Your task to perform on an android device: Search for "asus zenbook" on target, select the first entry, and add it to the cart. Image 0: 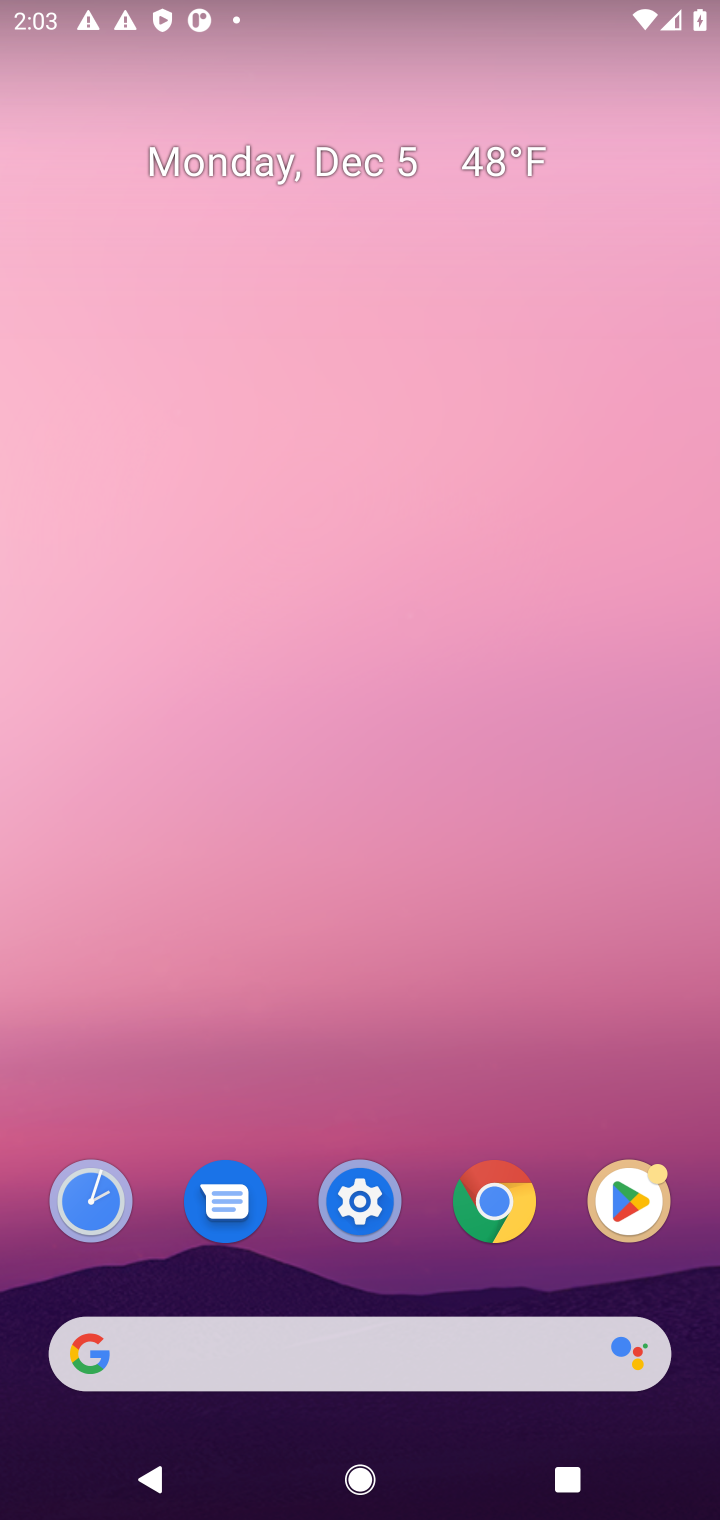
Step 0: press home button
Your task to perform on an android device: Search for "asus zenbook" on target, select the first entry, and add it to the cart. Image 1: 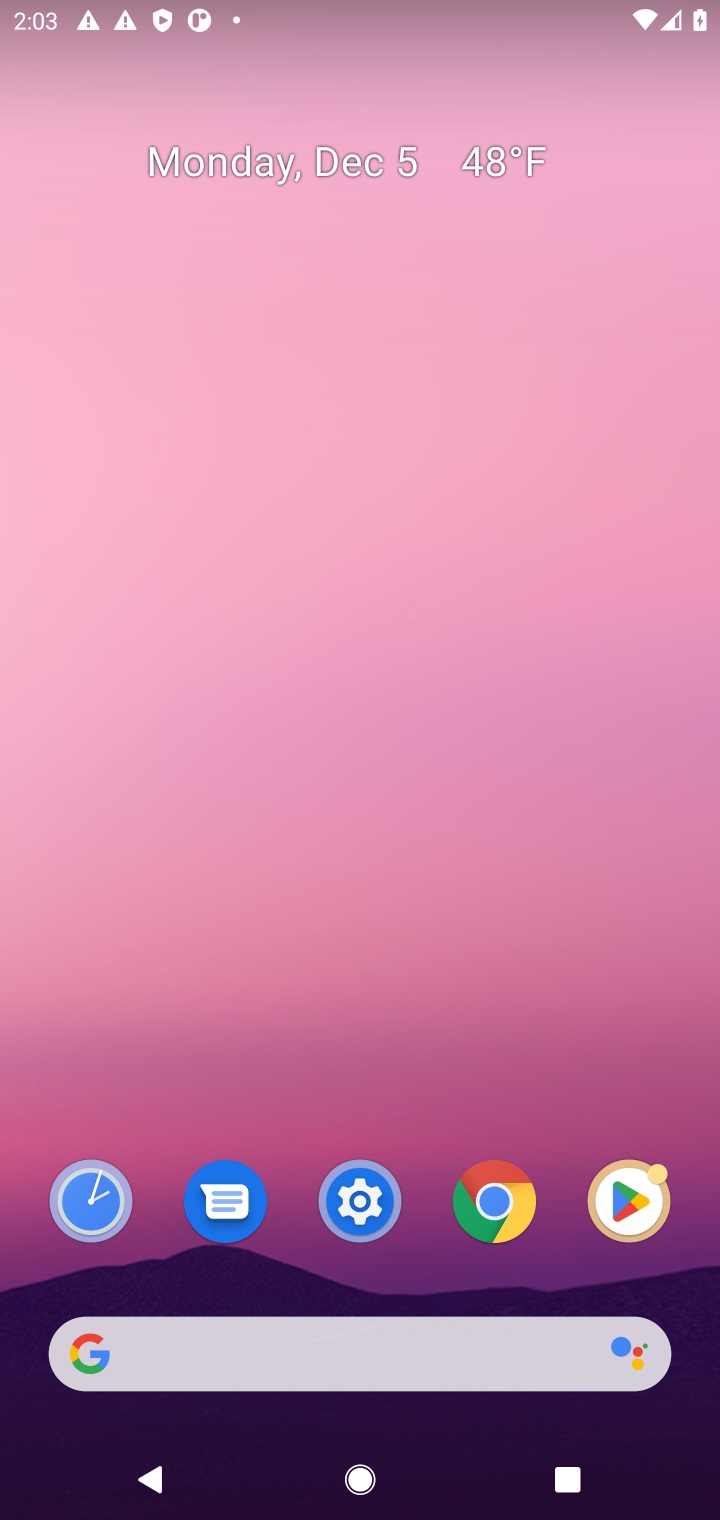
Step 1: click (486, 1193)
Your task to perform on an android device: Search for "asus zenbook" on target, select the first entry, and add it to the cart. Image 2: 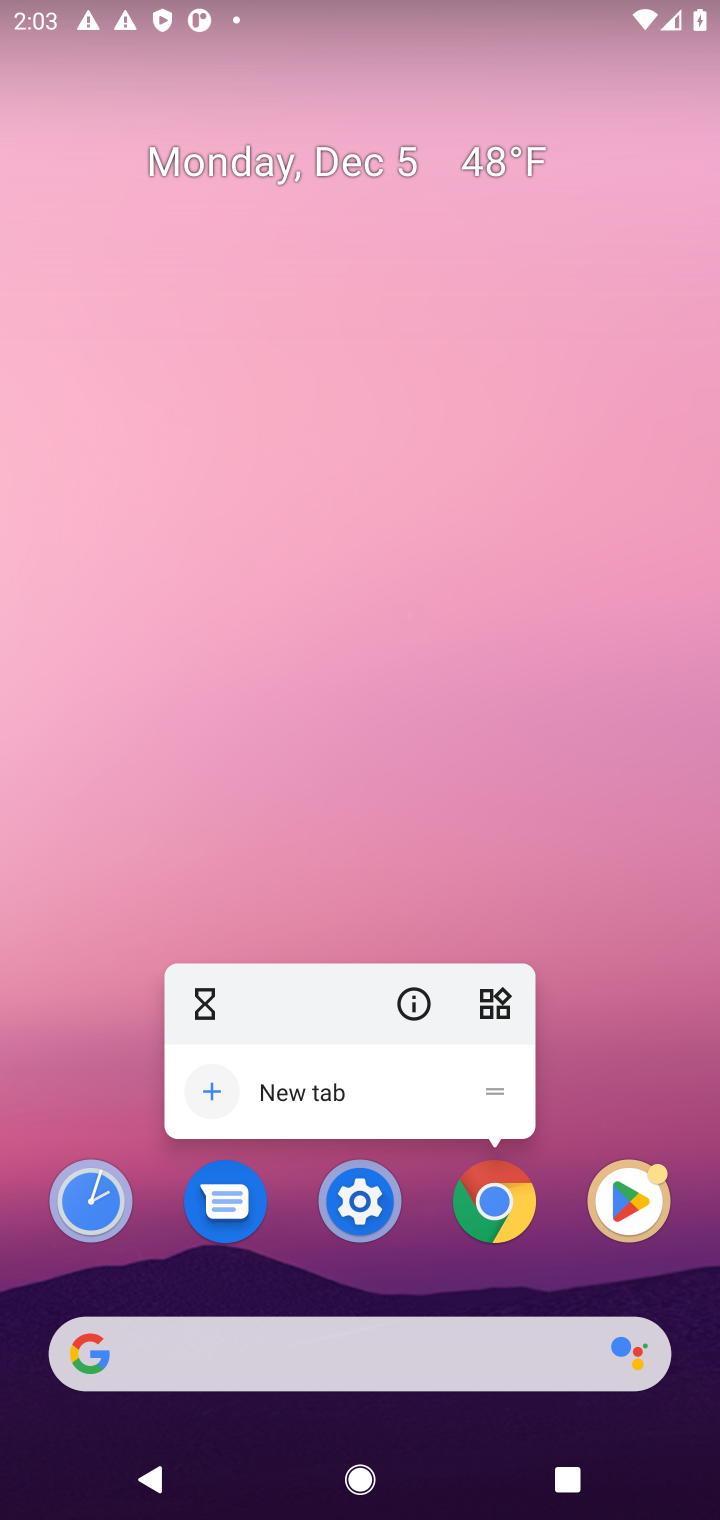
Step 2: click (493, 1200)
Your task to perform on an android device: Search for "asus zenbook" on target, select the first entry, and add it to the cart. Image 3: 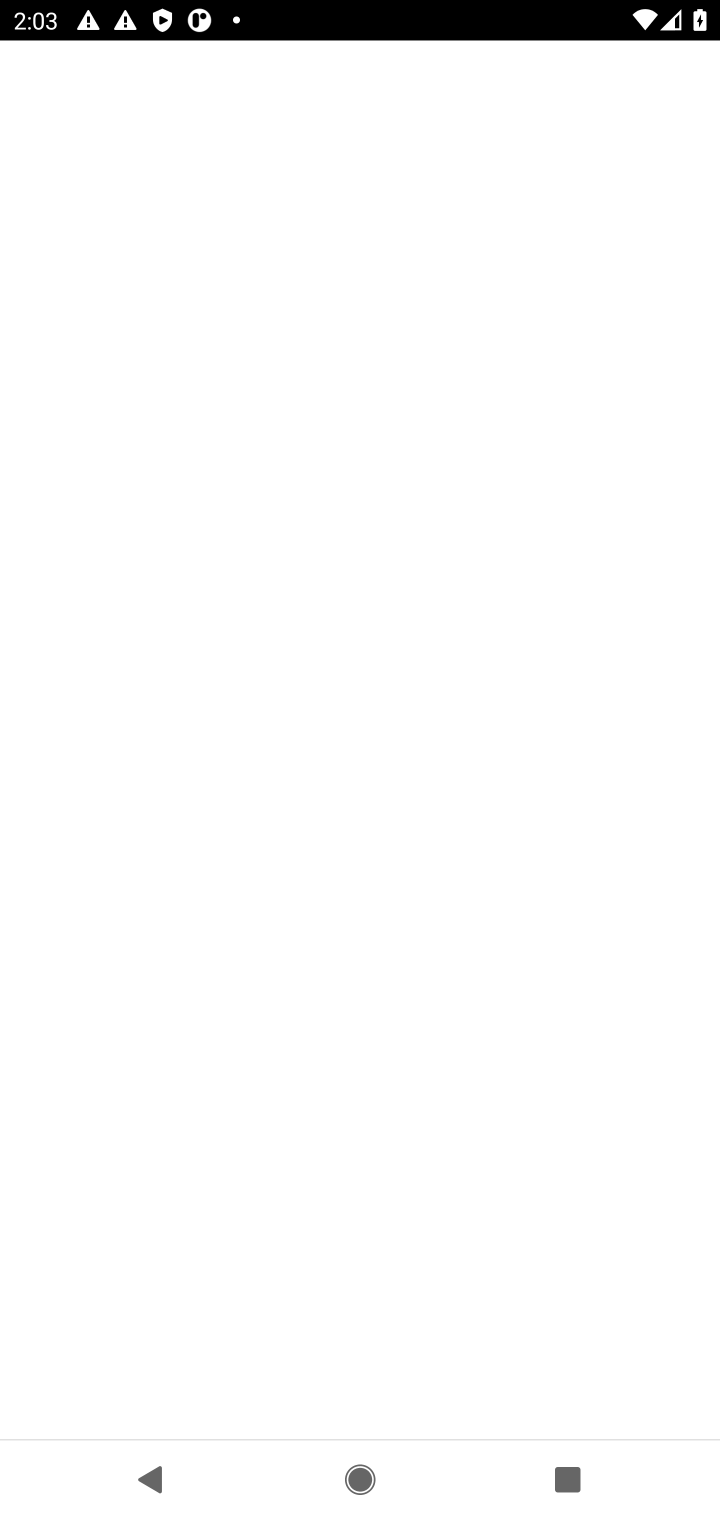
Step 3: click (493, 1200)
Your task to perform on an android device: Search for "asus zenbook" on target, select the first entry, and add it to the cart. Image 4: 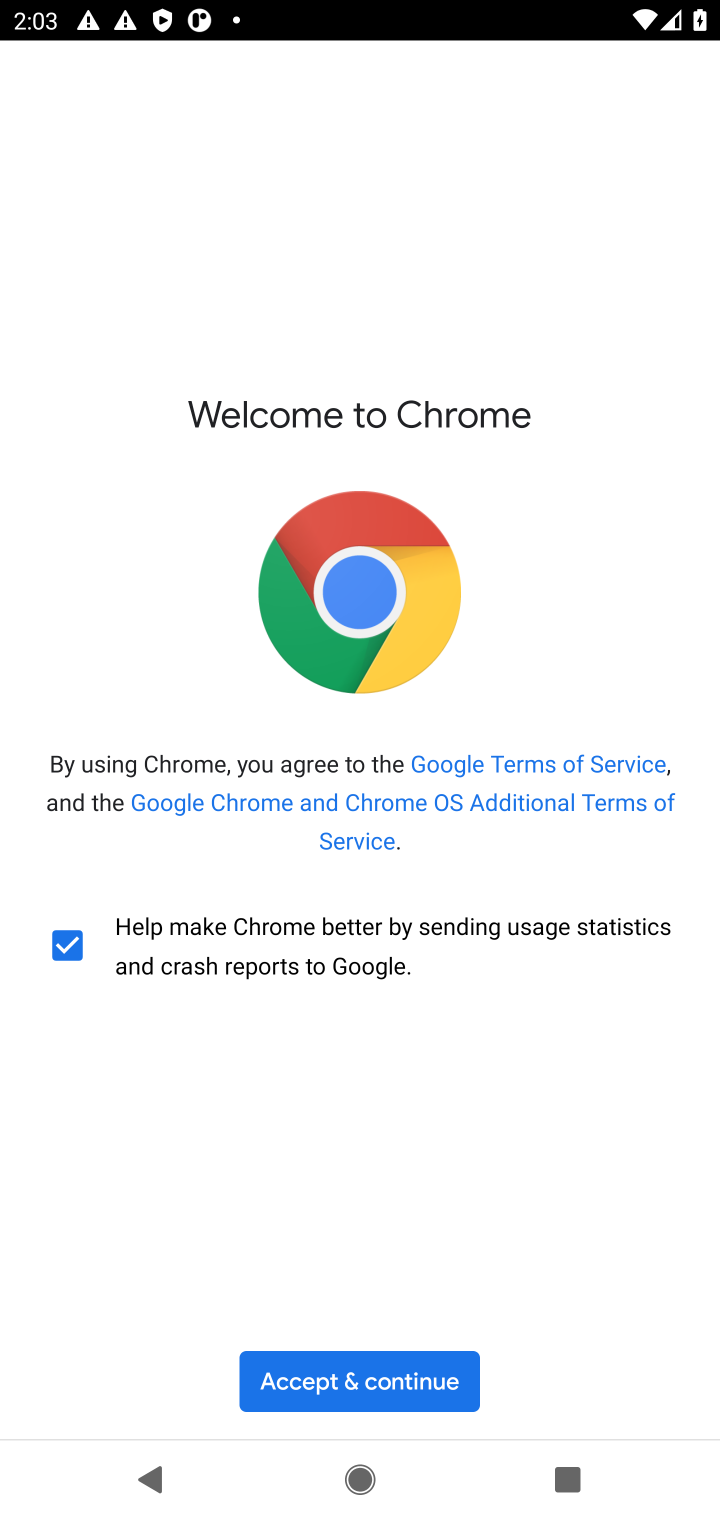
Step 4: click (372, 1372)
Your task to perform on an android device: Search for "asus zenbook" on target, select the first entry, and add it to the cart. Image 5: 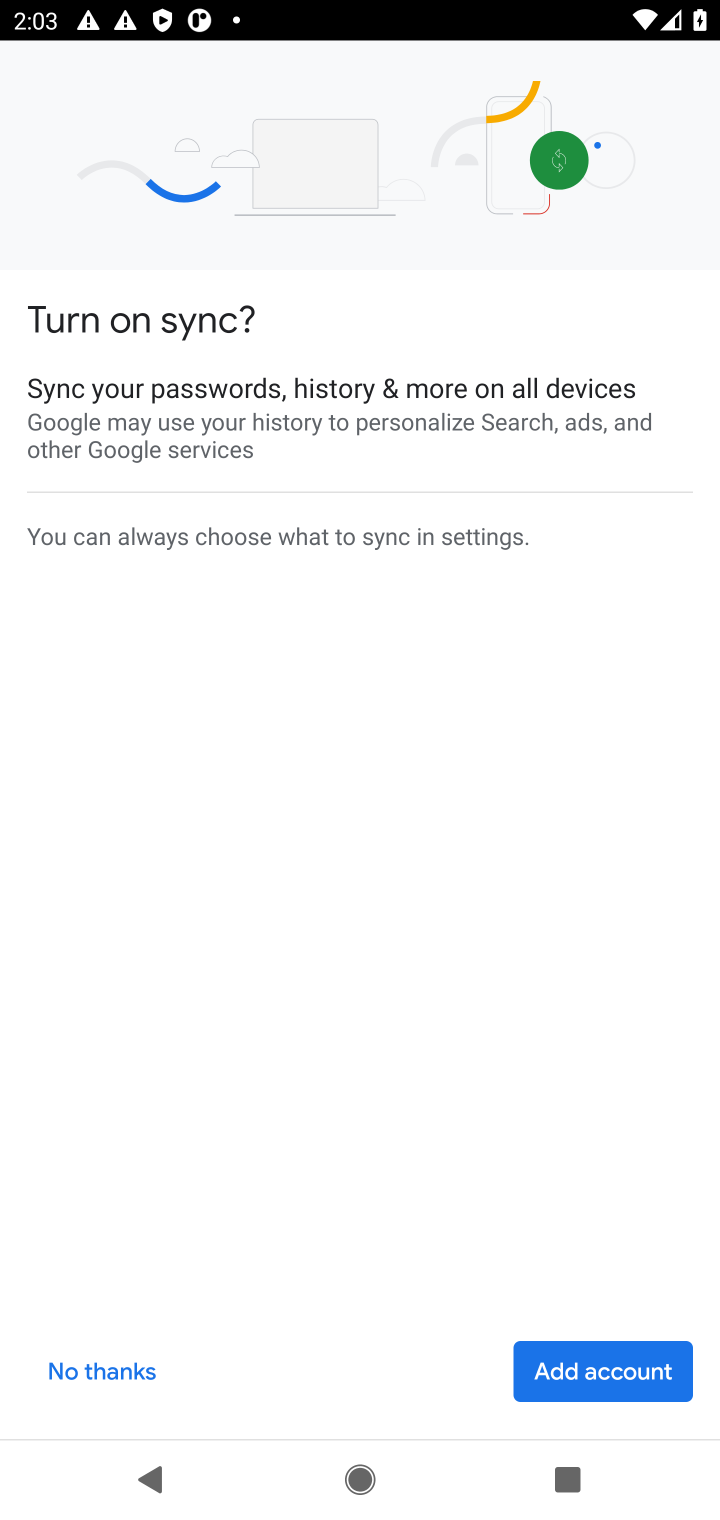
Step 5: click (94, 1371)
Your task to perform on an android device: Search for "asus zenbook" on target, select the first entry, and add it to the cart. Image 6: 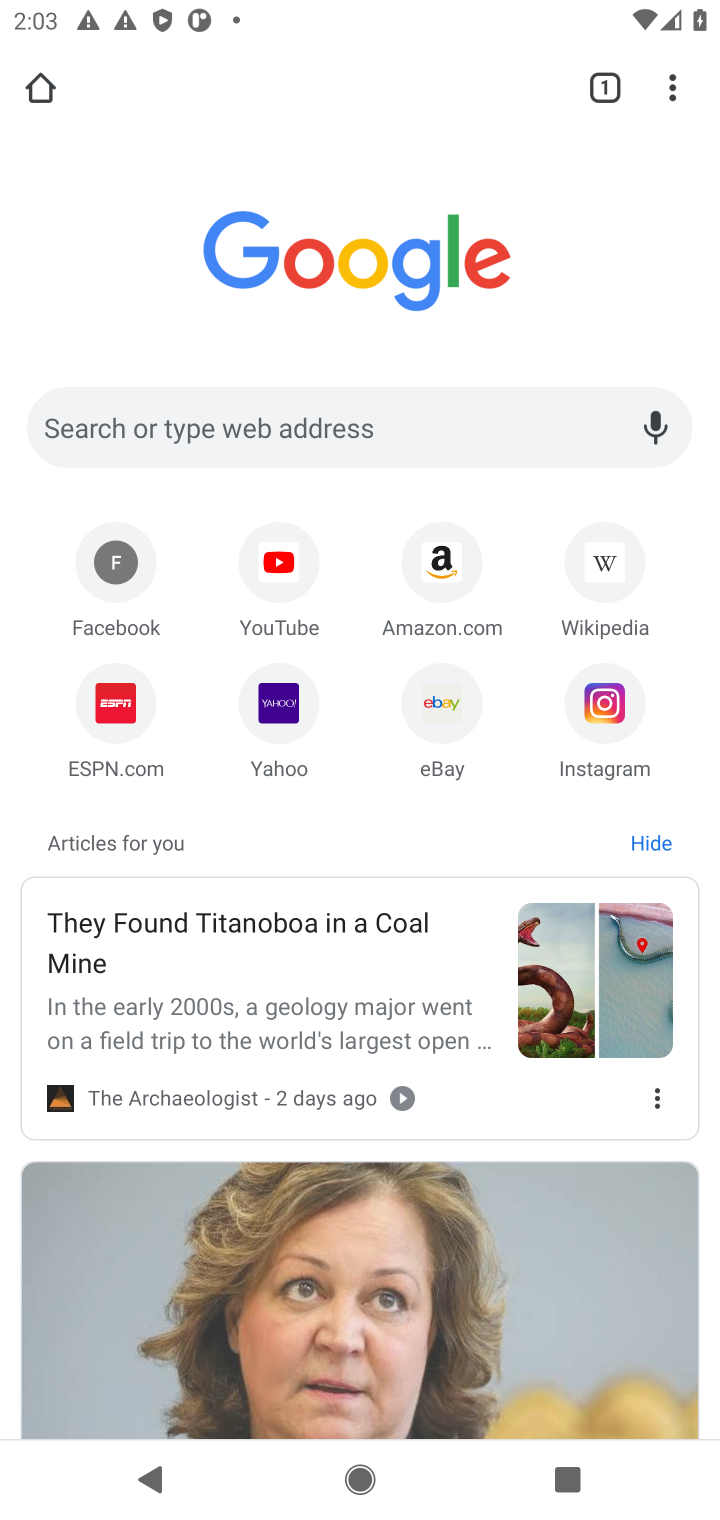
Step 6: click (371, 409)
Your task to perform on an android device: Search for "asus zenbook" on target, select the first entry, and add it to the cart. Image 7: 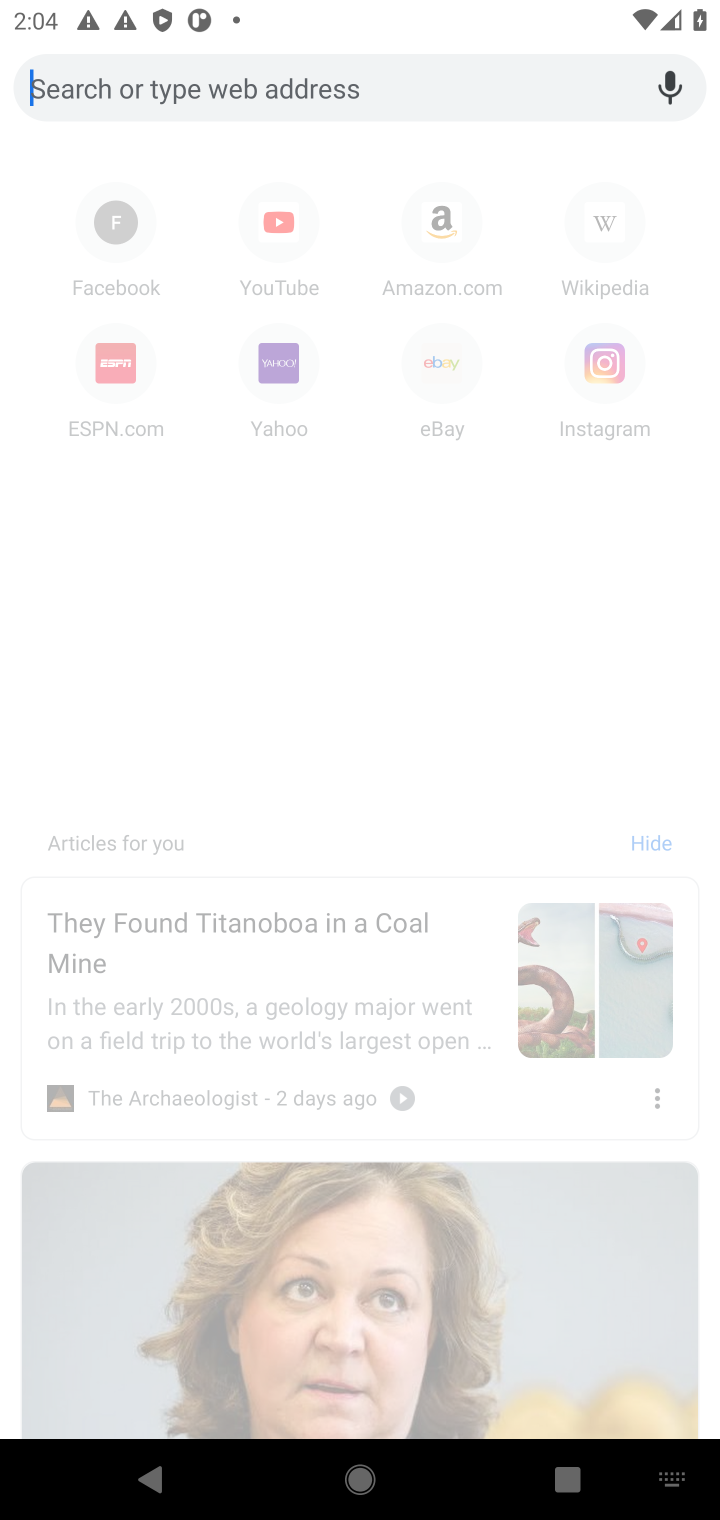
Step 7: type "target"
Your task to perform on an android device: Search for "asus zenbook" on target, select the first entry, and add it to the cart. Image 8: 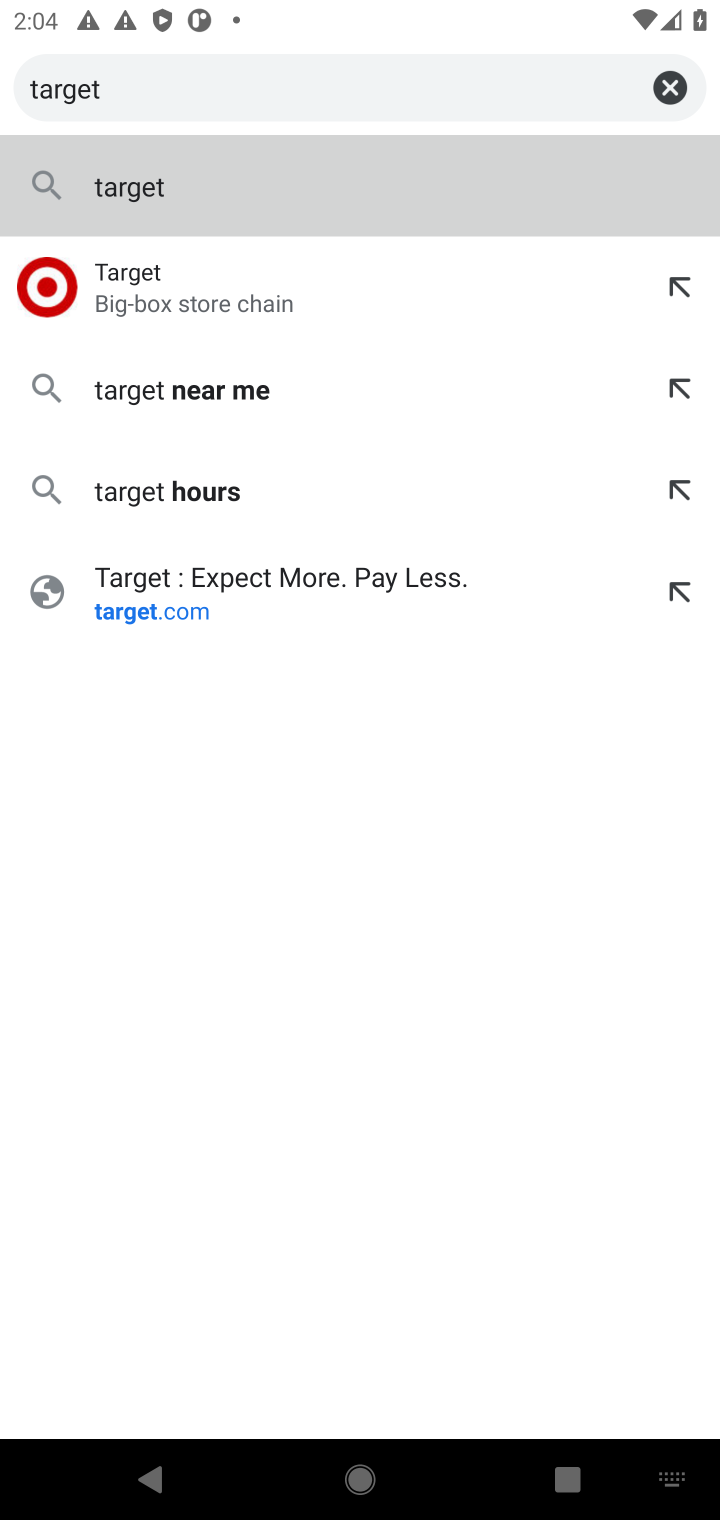
Step 8: click (217, 302)
Your task to perform on an android device: Search for "asus zenbook" on target, select the first entry, and add it to the cart. Image 9: 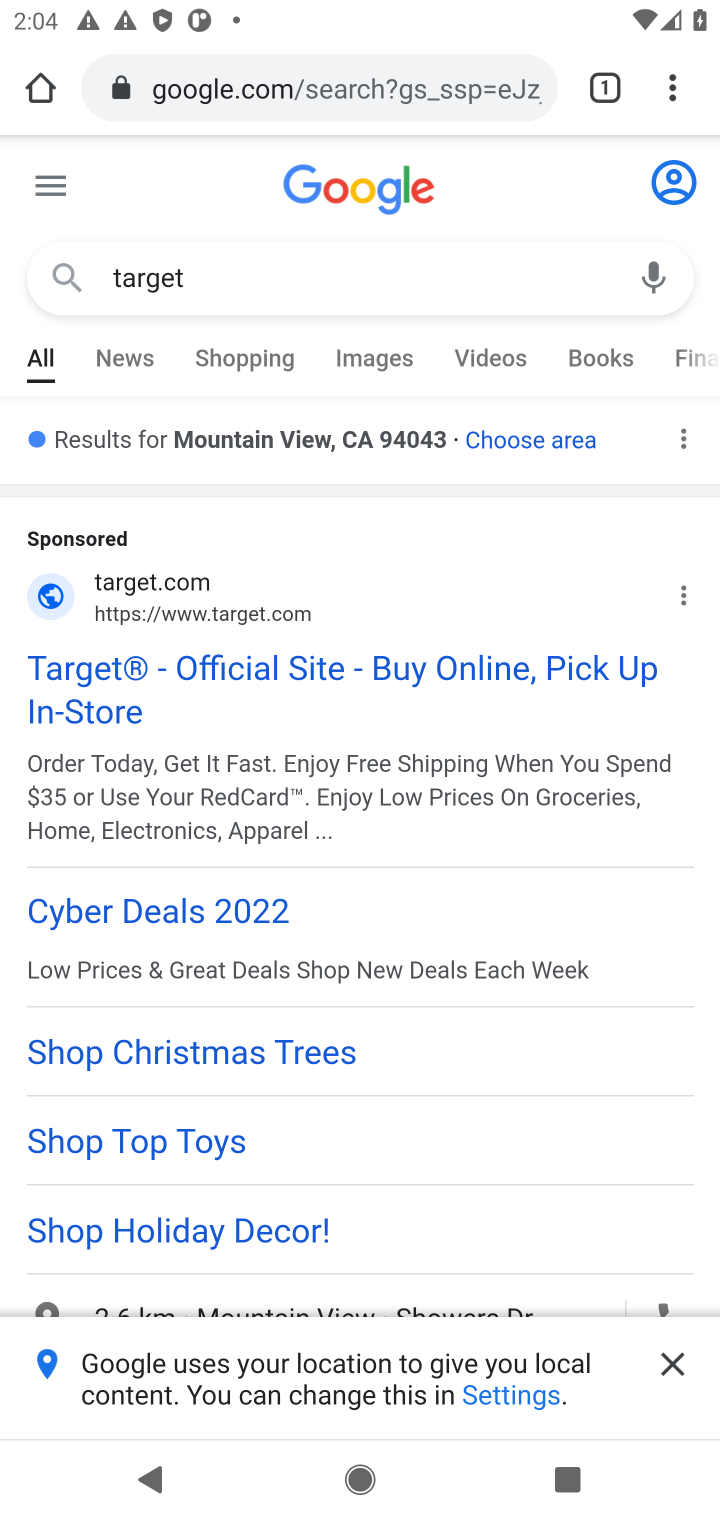
Step 9: click (252, 674)
Your task to perform on an android device: Search for "asus zenbook" on target, select the first entry, and add it to the cart. Image 10: 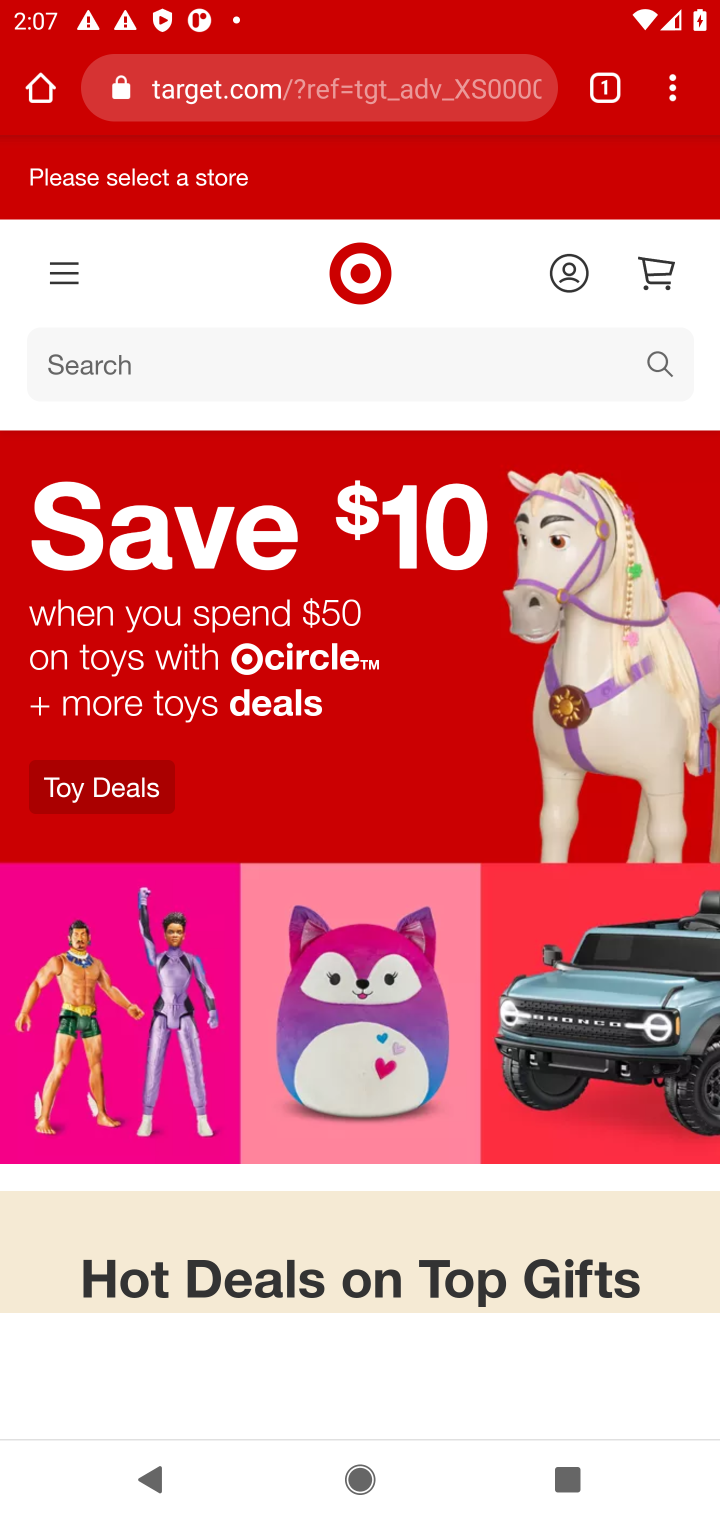
Step 10: task complete